Your task to perform on an android device: turn on sleep mode Image 0: 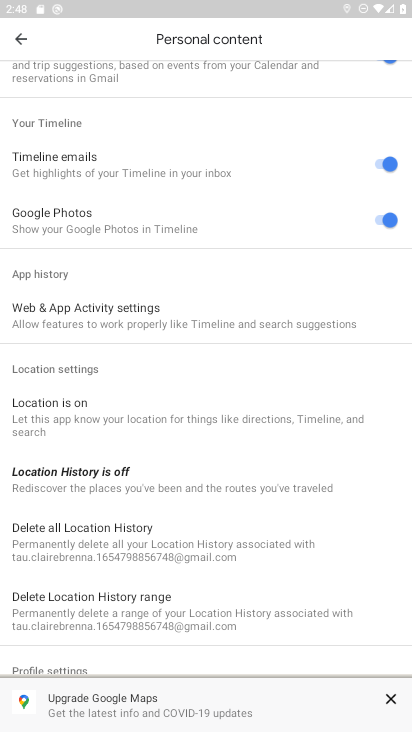
Step 0: press home button
Your task to perform on an android device: turn on sleep mode Image 1: 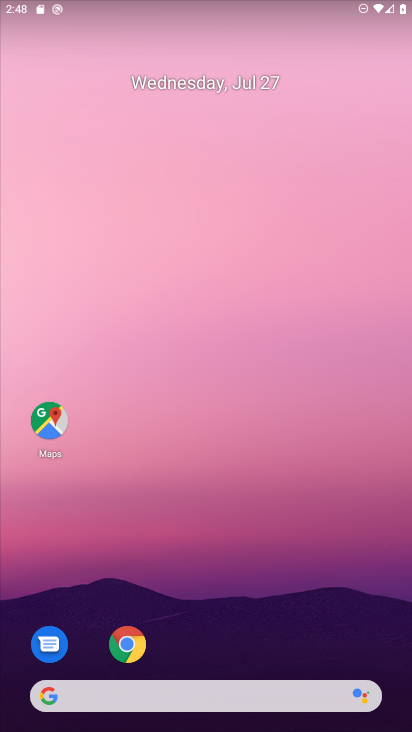
Step 1: drag from (223, 597) to (211, 129)
Your task to perform on an android device: turn on sleep mode Image 2: 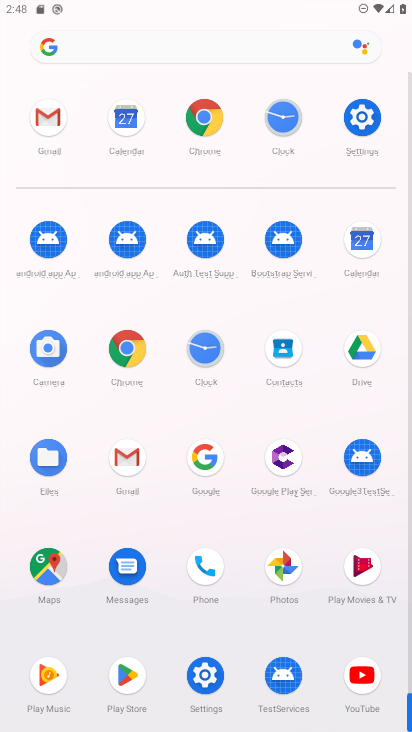
Step 2: click (361, 137)
Your task to perform on an android device: turn on sleep mode Image 3: 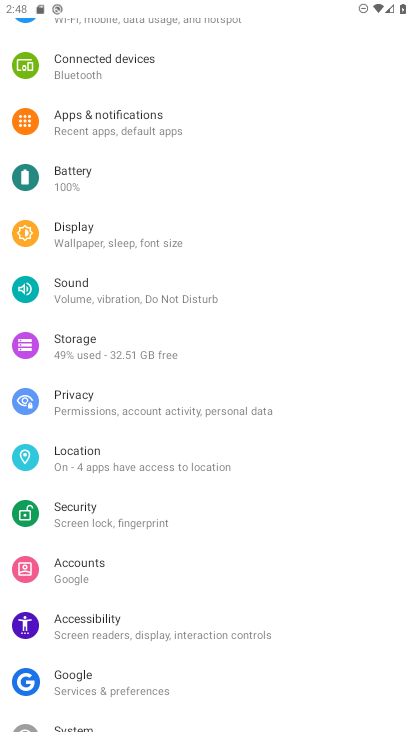
Step 3: drag from (174, 65) to (181, 448)
Your task to perform on an android device: turn on sleep mode Image 4: 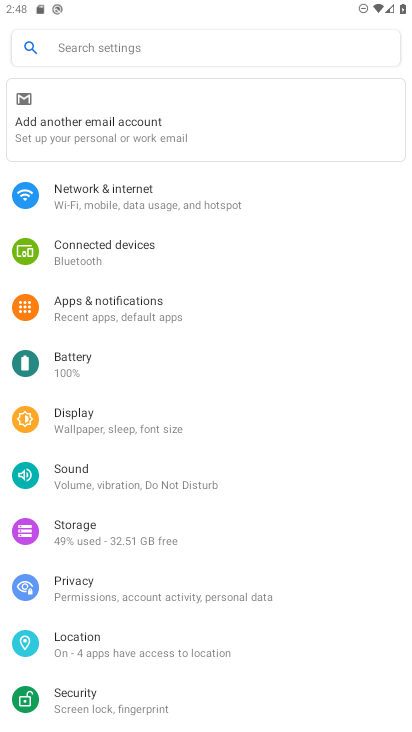
Step 4: click (171, 45)
Your task to perform on an android device: turn on sleep mode Image 5: 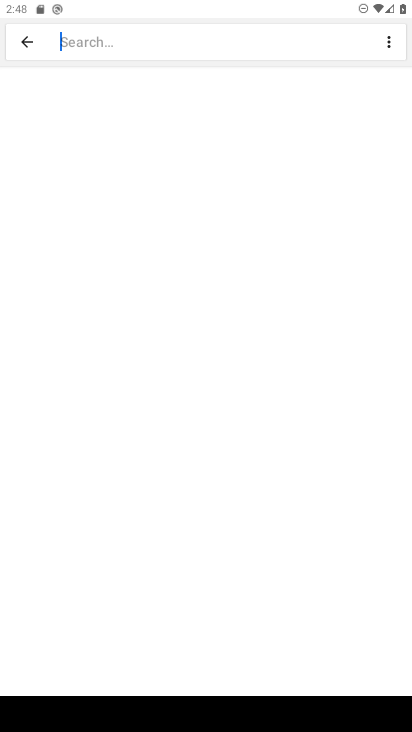
Step 5: type "sleep mode"
Your task to perform on an android device: turn on sleep mode Image 6: 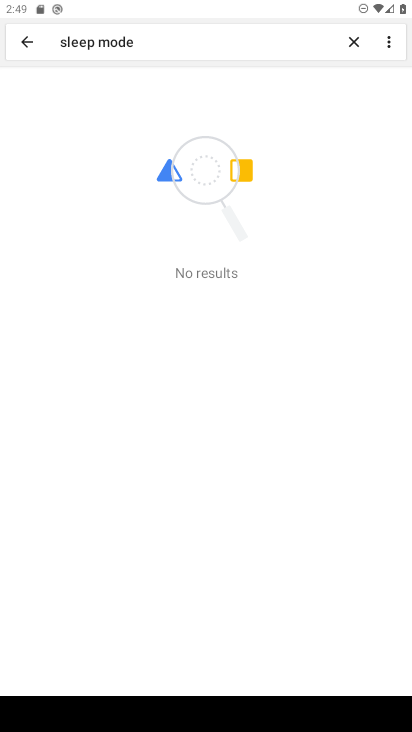
Step 6: task complete